Your task to perform on an android device: toggle notifications settings in the gmail app Image 0: 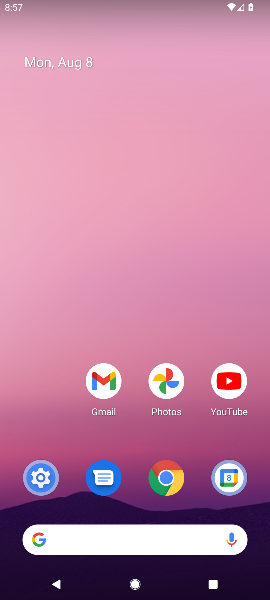
Step 0: click (106, 382)
Your task to perform on an android device: toggle notifications settings in the gmail app Image 1: 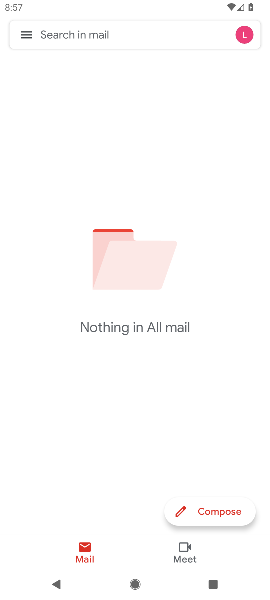
Step 1: click (27, 34)
Your task to perform on an android device: toggle notifications settings in the gmail app Image 2: 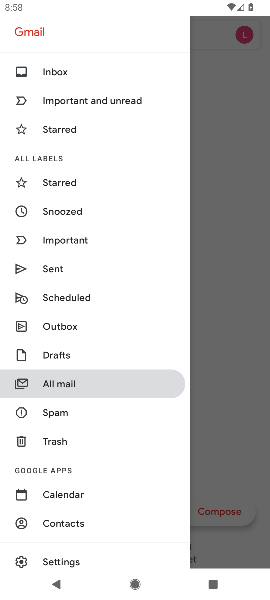
Step 2: drag from (102, 497) to (132, 170)
Your task to perform on an android device: toggle notifications settings in the gmail app Image 3: 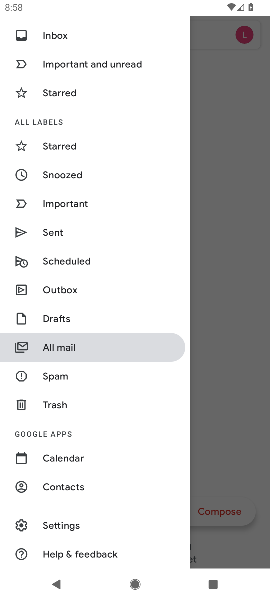
Step 3: click (61, 524)
Your task to perform on an android device: toggle notifications settings in the gmail app Image 4: 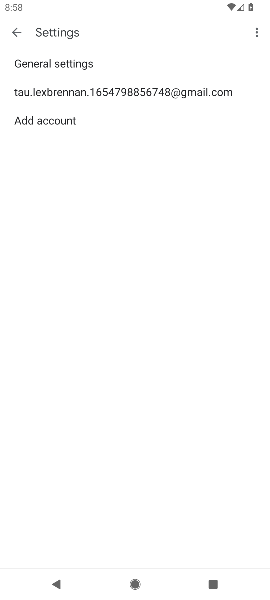
Step 4: click (184, 87)
Your task to perform on an android device: toggle notifications settings in the gmail app Image 5: 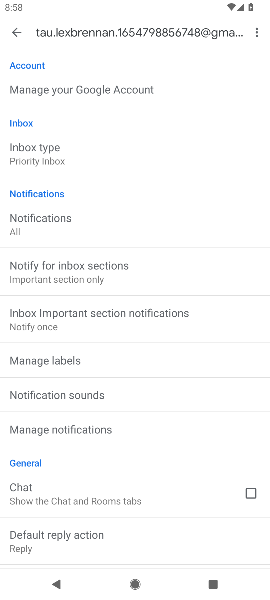
Step 5: click (37, 223)
Your task to perform on an android device: toggle notifications settings in the gmail app Image 6: 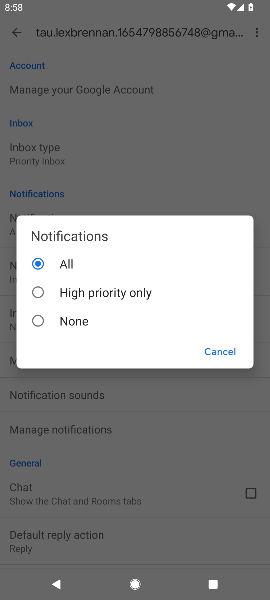
Step 6: click (35, 318)
Your task to perform on an android device: toggle notifications settings in the gmail app Image 7: 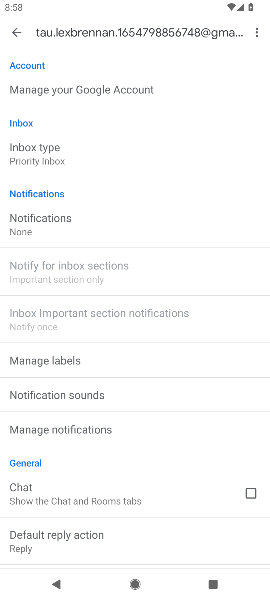
Step 7: task complete